Your task to perform on an android device: open app "Cash App" Image 0: 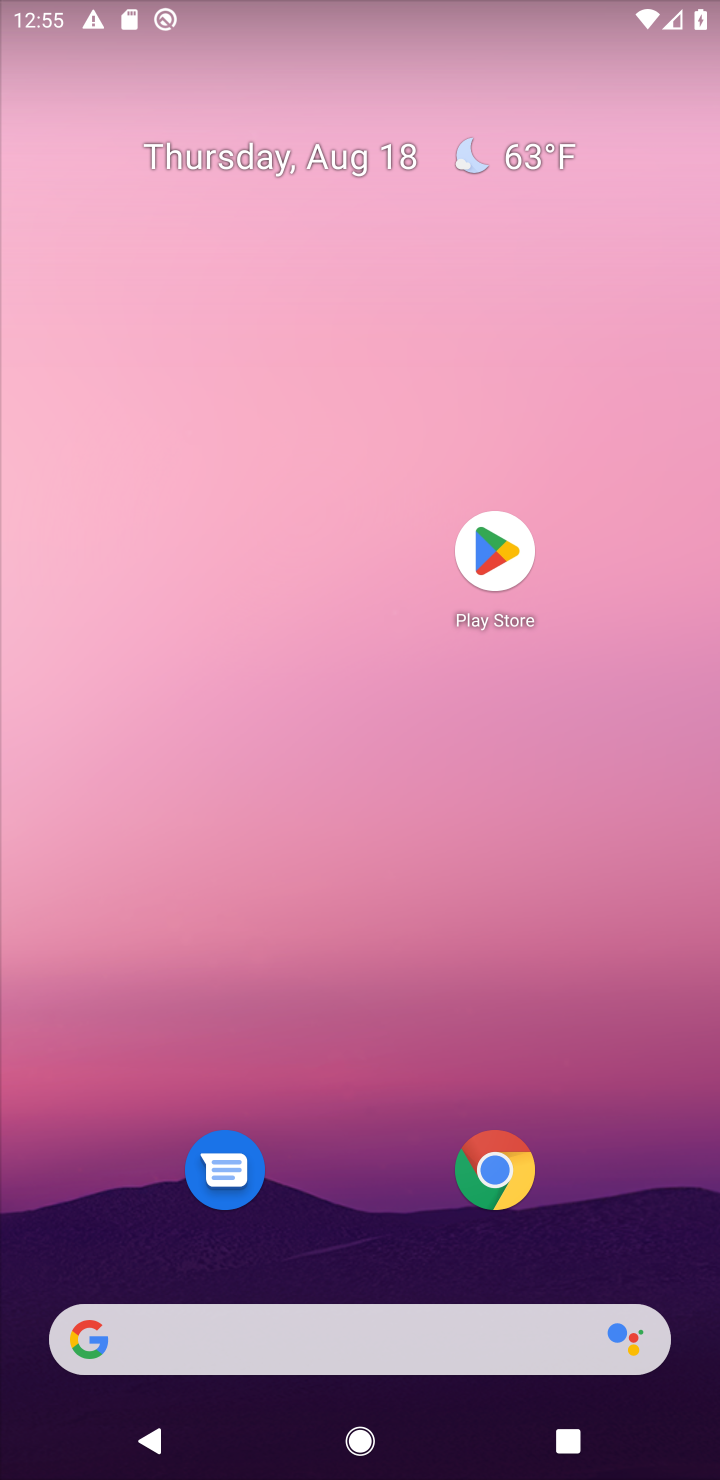
Step 0: press home button
Your task to perform on an android device: open app "Cash App" Image 1: 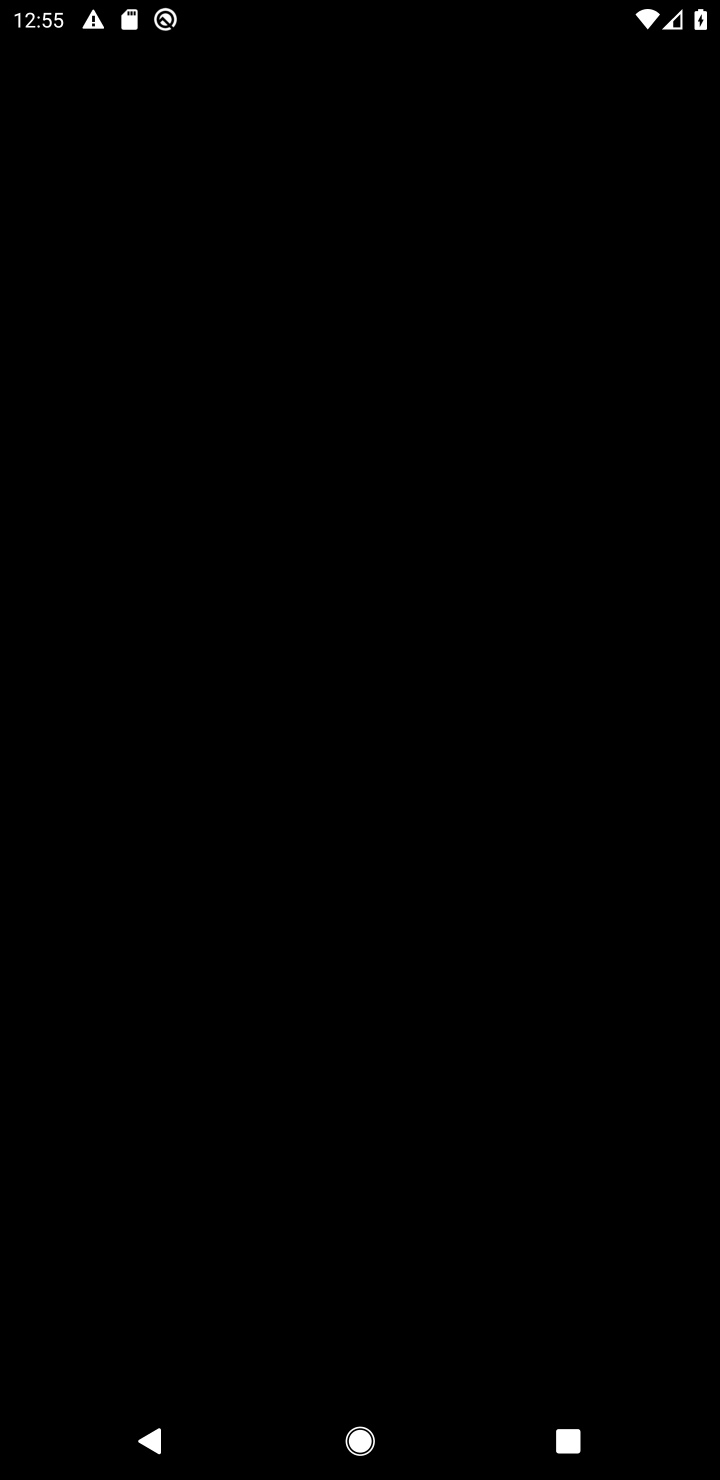
Step 1: press back button
Your task to perform on an android device: open app "Cash App" Image 2: 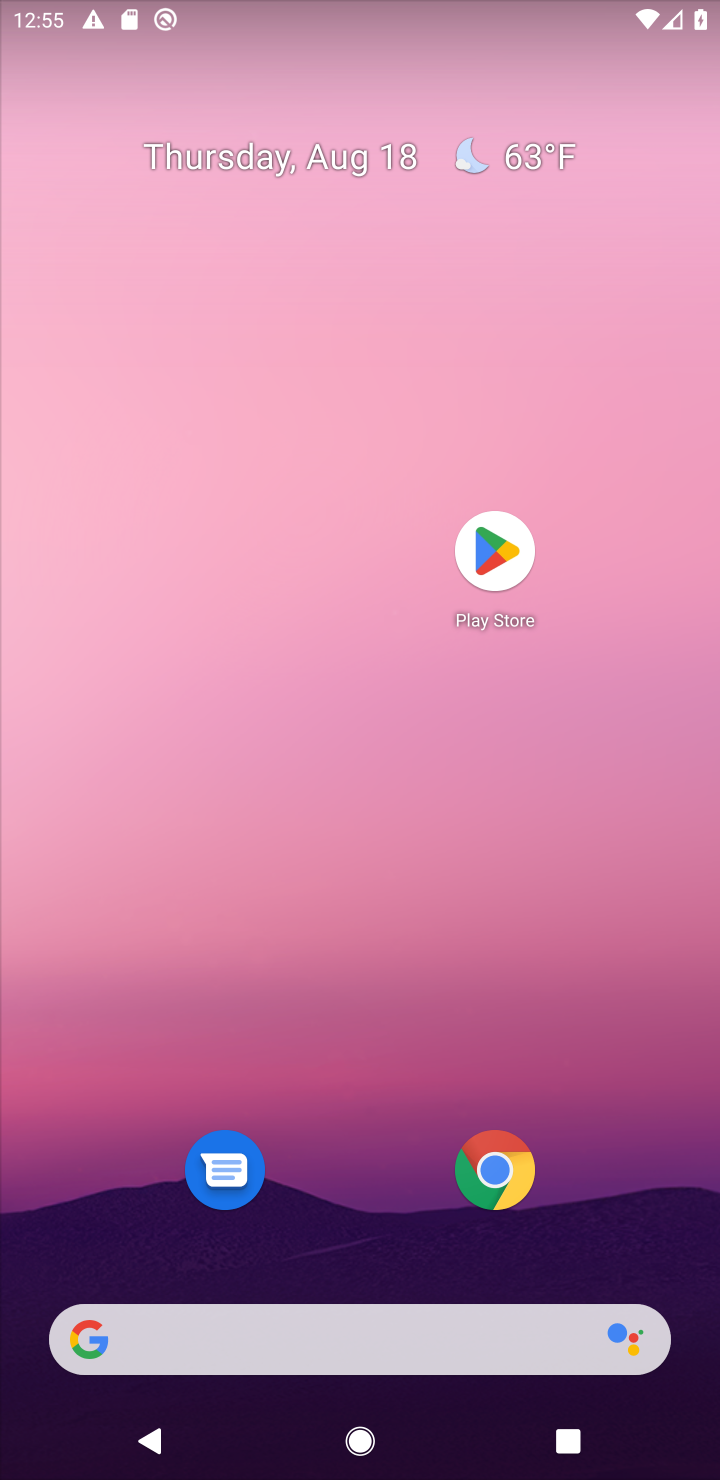
Step 2: press back button
Your task to perform on an android device: open app "Cash App" Image 3: 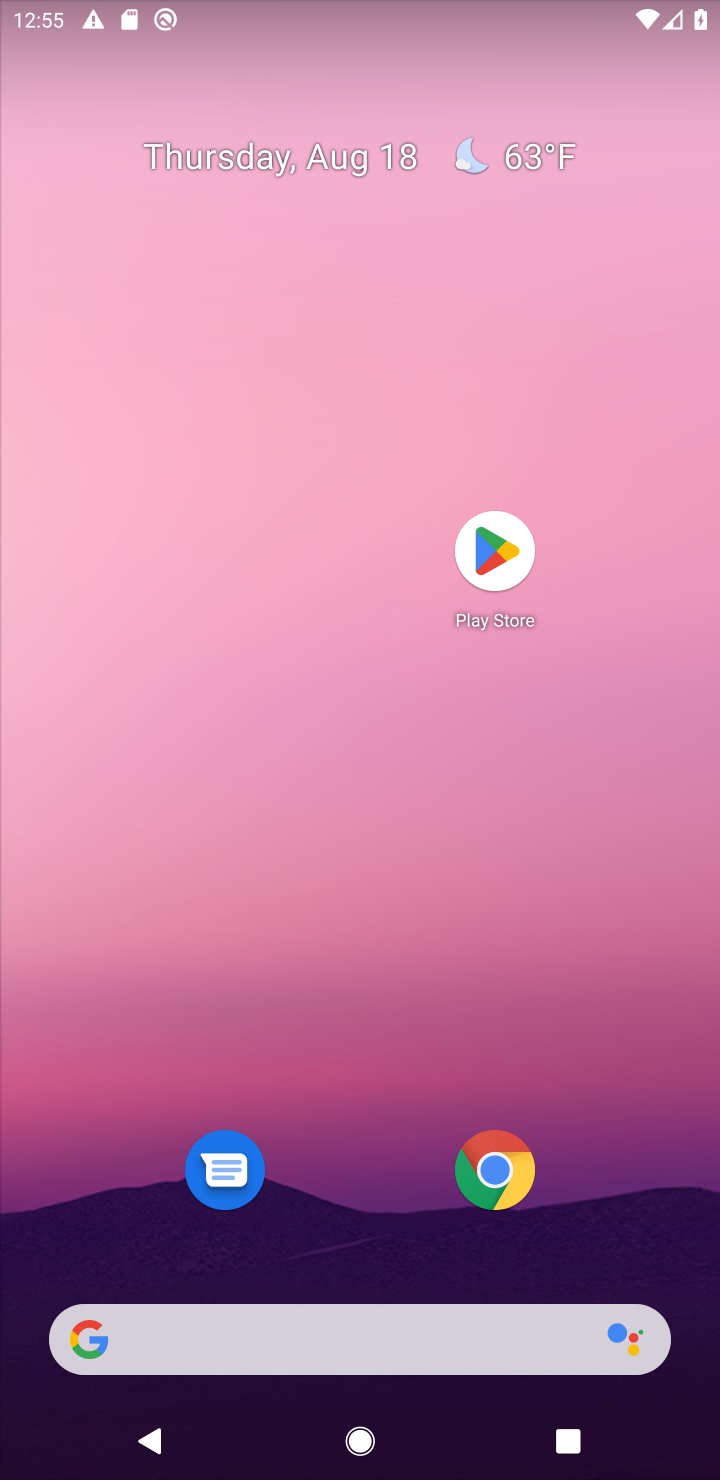
Step 3: click (503, 559)
Your task to perform on an android device: open app "Cash App" Image 4: 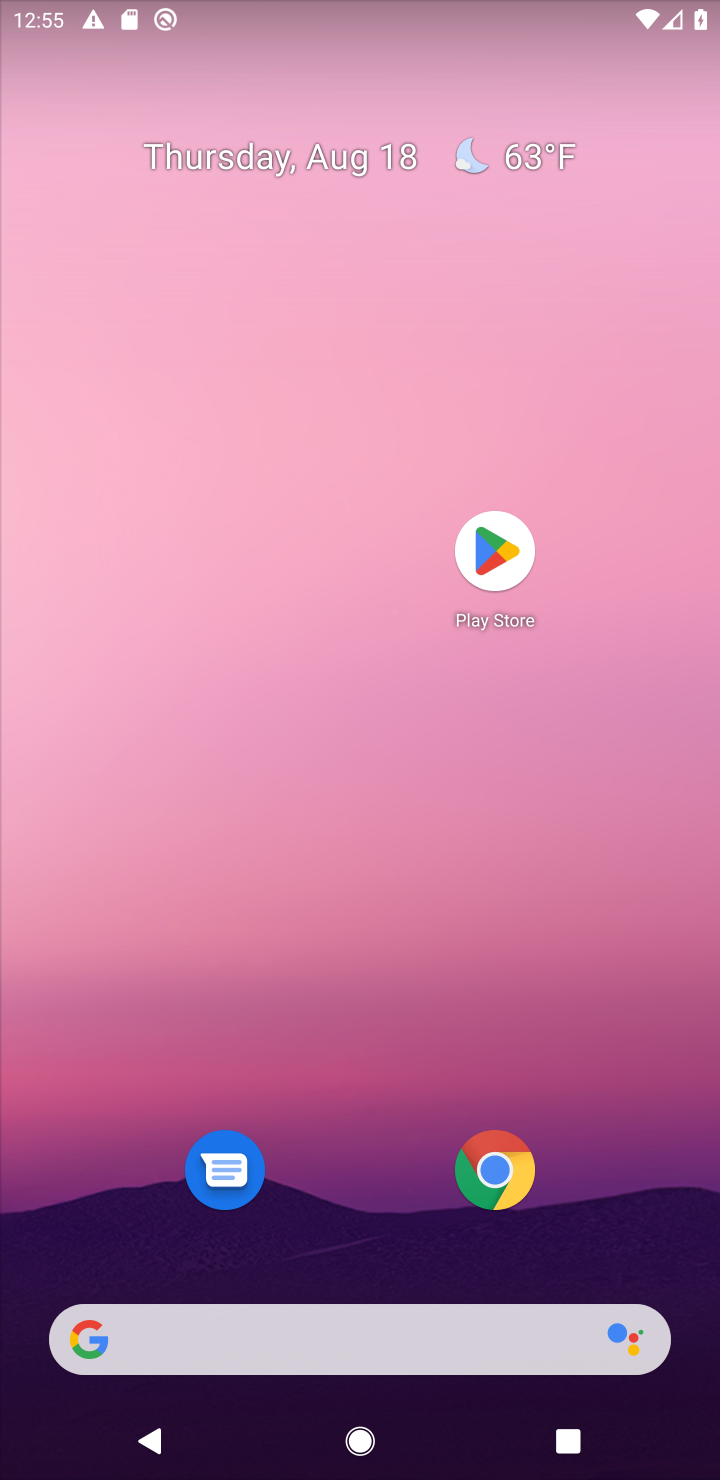
Step 4: click (503, 559)
Your task to perform on an android device: open app "Cash App" Image 5: 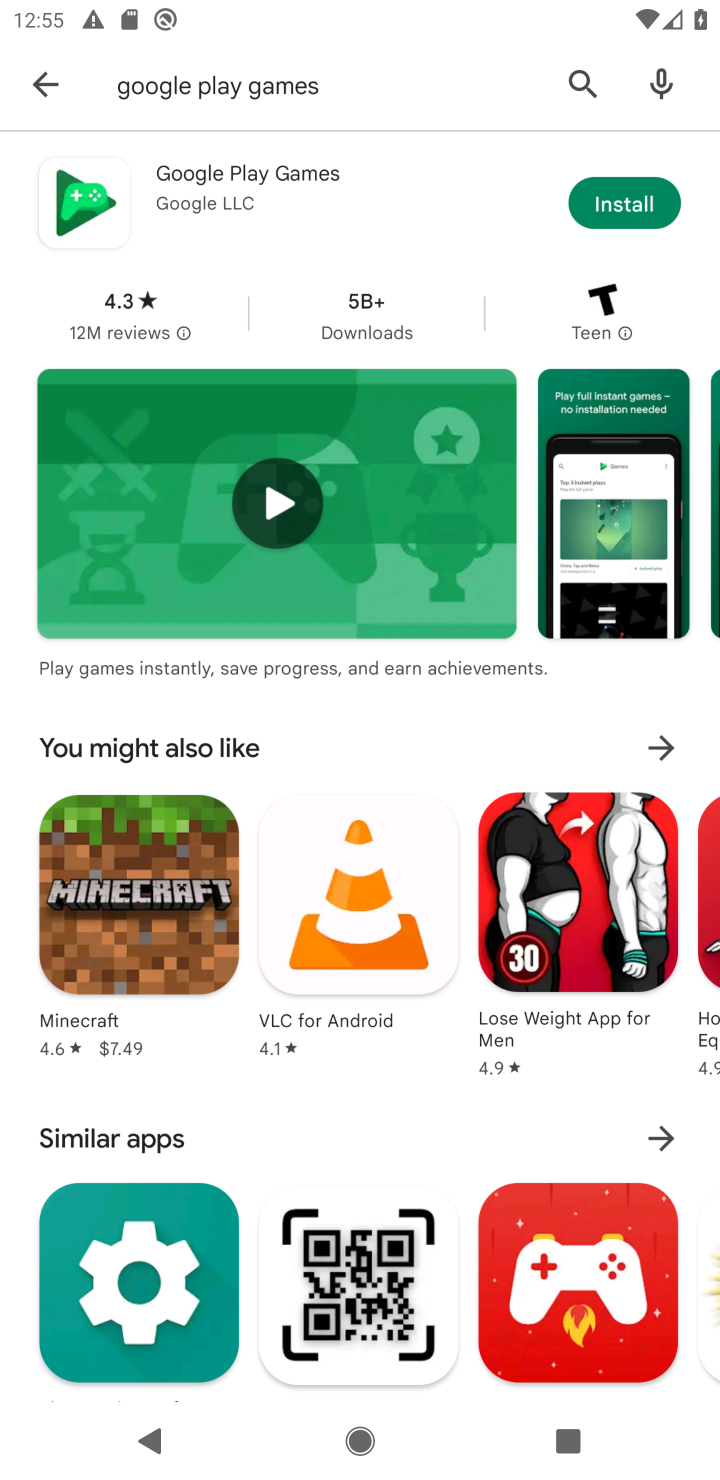
Step 5: click (503, 559)
Your task to perform on an android device: open app "Cash App" Image 6: 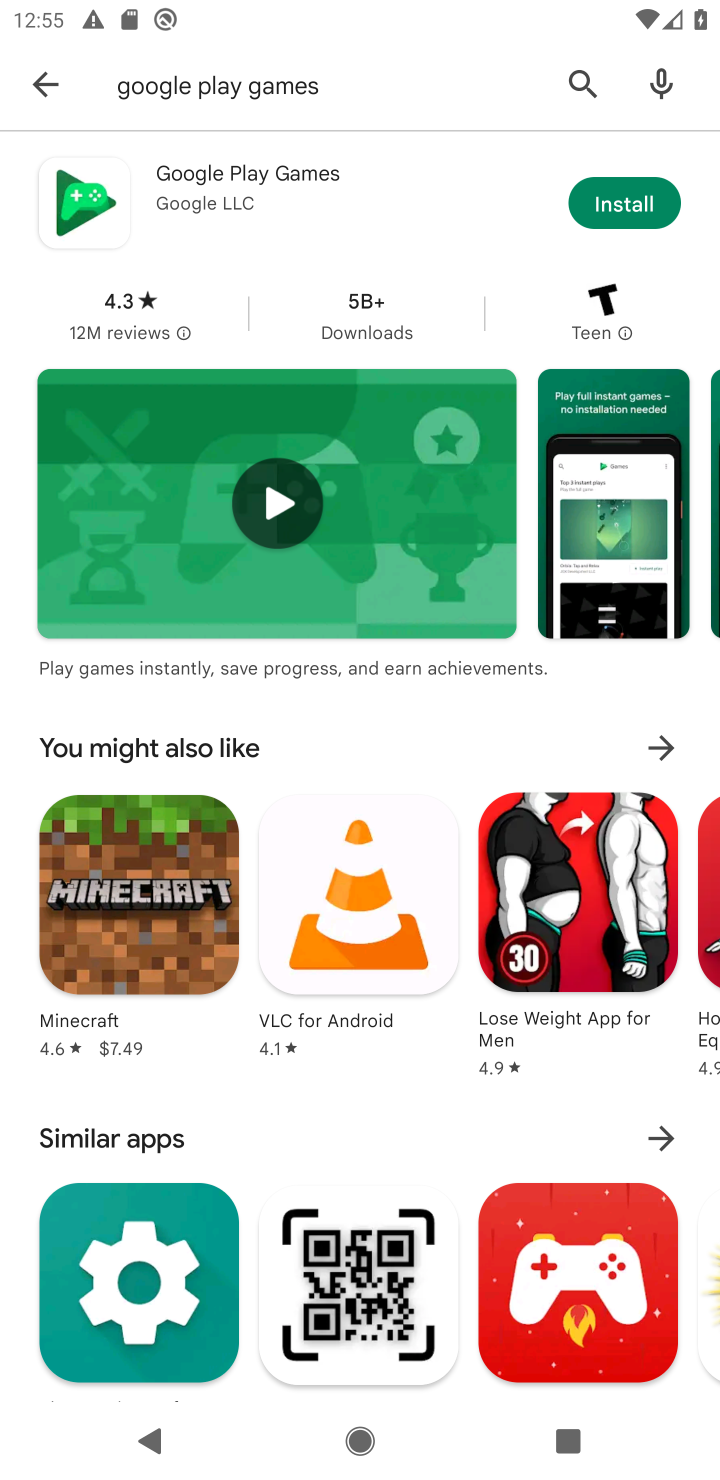
Step 6: click (568, 78)
Your task to perform on an android device: open app "Cash App" Image 7: 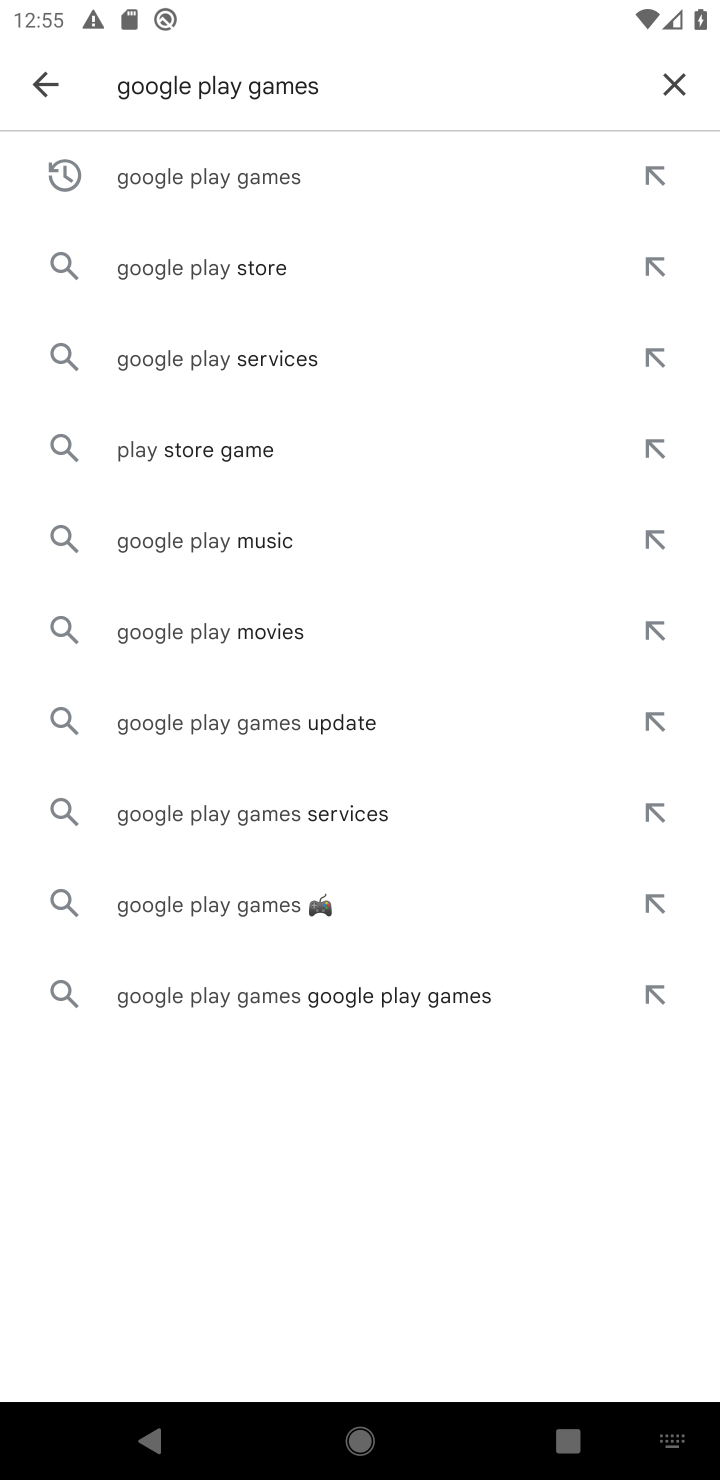
Step 7: click (679, 80)
Your task to perform on an android device: open app "Cash App" Image 8: 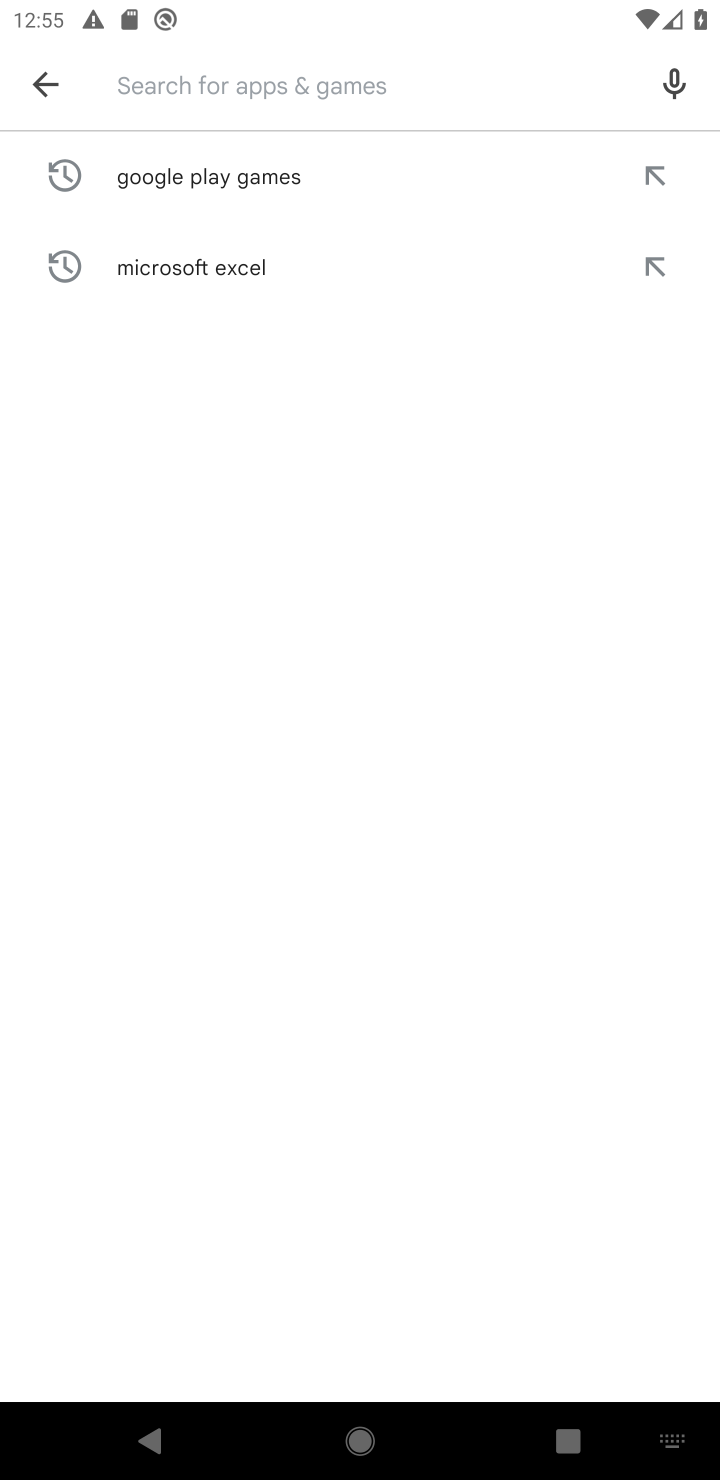
Step 8: type "Cash App"
Your task to perform on an android device: open app "Cash App" Image 9: 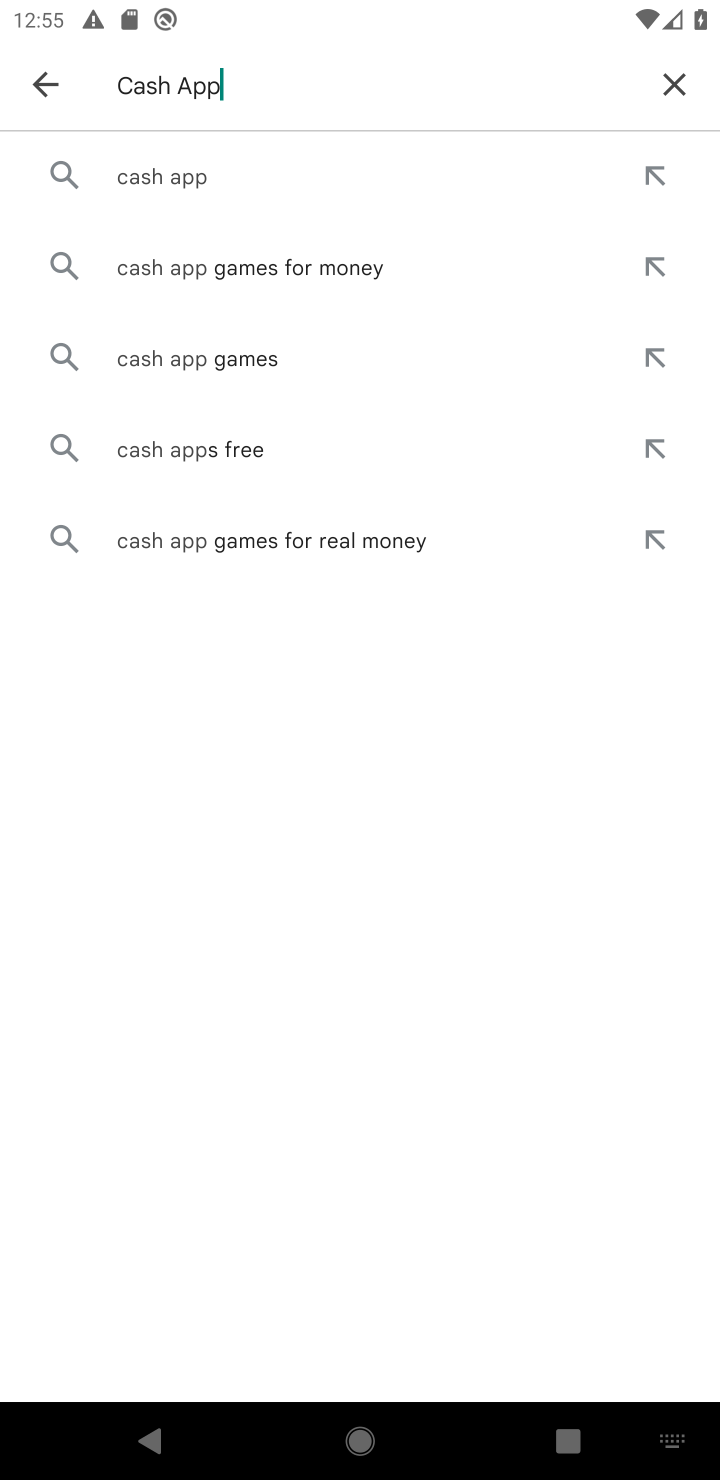
Step 9: click (152, 184)
Your task to perform on an android device: open app "Cash App" Image 10: 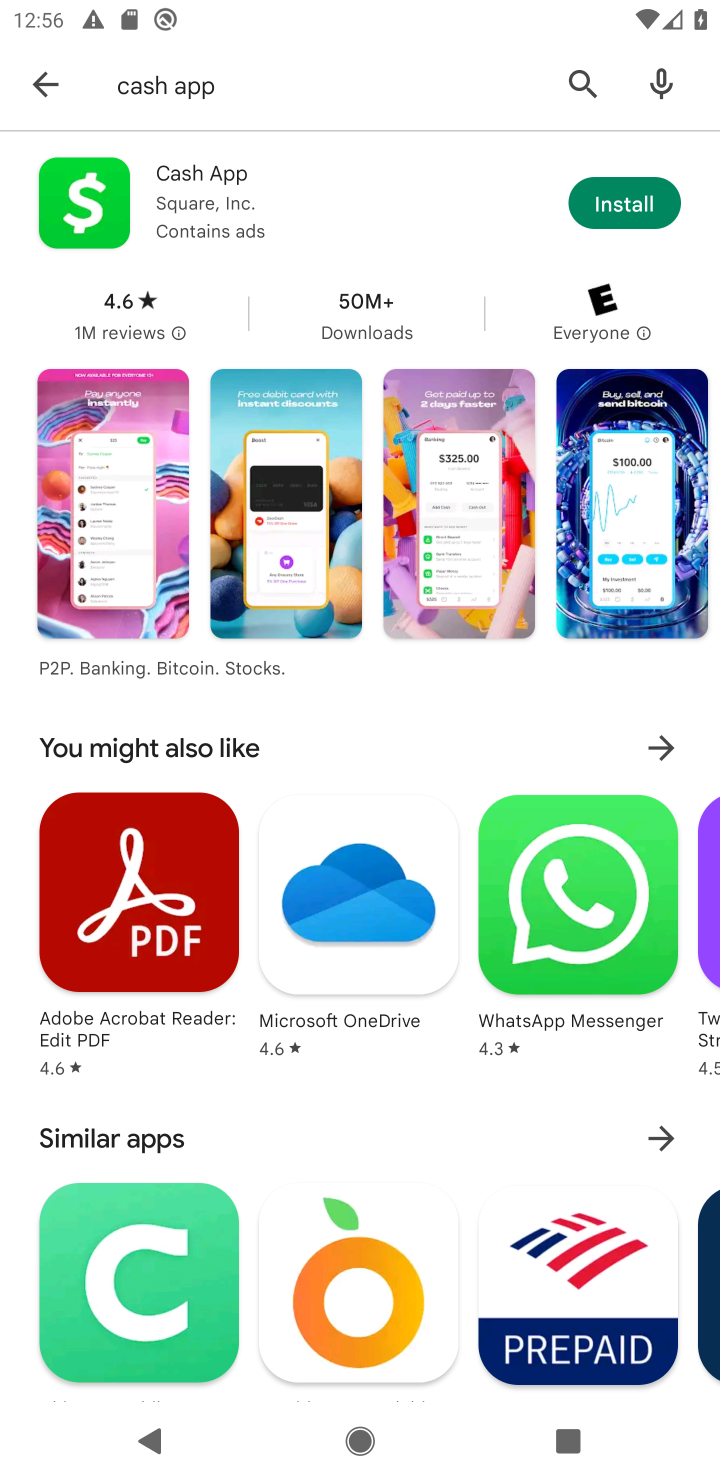
Step 10: task complete